Your task to perform on an android device: turn on showing notifications on the lock screen Image 0: 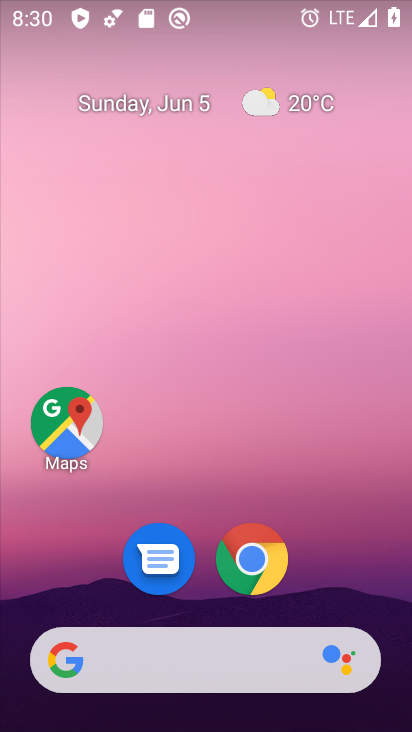
Step 0: drag from (349, 600) to (283, 179)
Your task to perform on an android device: turn on showing notifications on the lock screen Image 1: 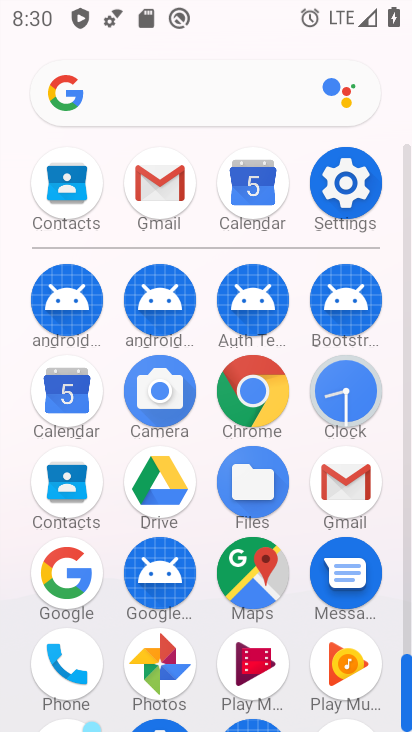
Step 1: click (358, 177)
Your task to perform on an android device: turn on showing notifications on the lock screen Image 2: 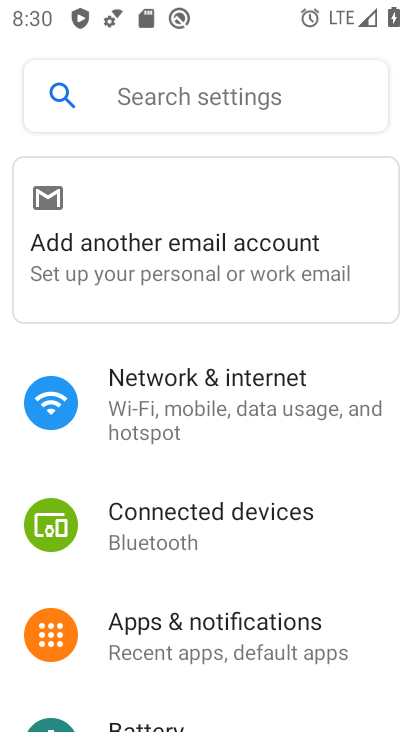
Step 2: drag from (264, 565) to (288, 136)
Your task to perform on an android device: turn on showing notifications on the lock screen Image 3: 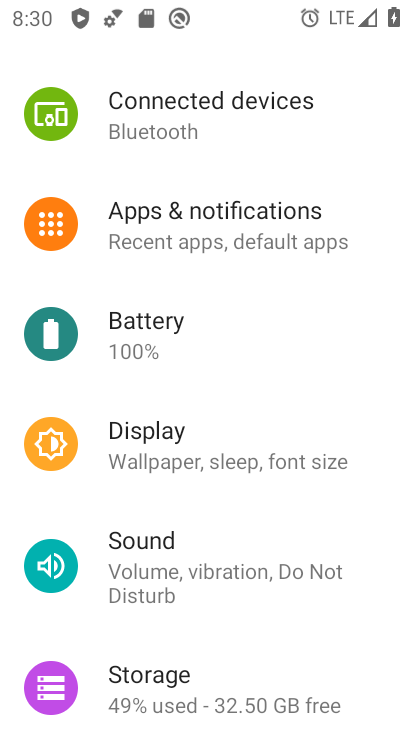
Step 3: click (276, 218)
Your task to perform on an android device: turn on showing notifications on the lock screen Image 4: 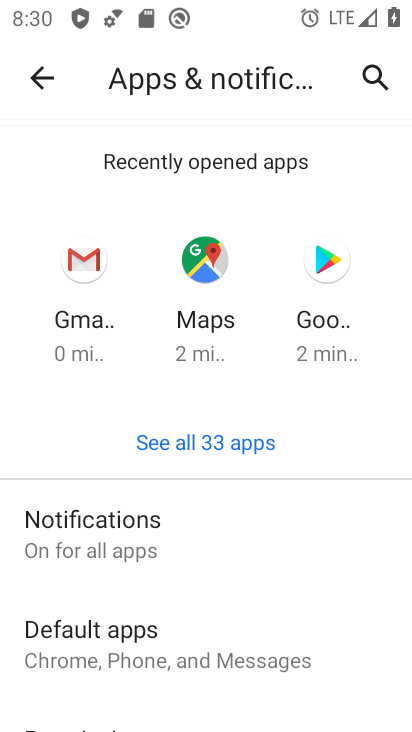
Step 4: click (139, 523)
Your task to perform on an android device: turn on showing notifications on the lock screen Image 5: 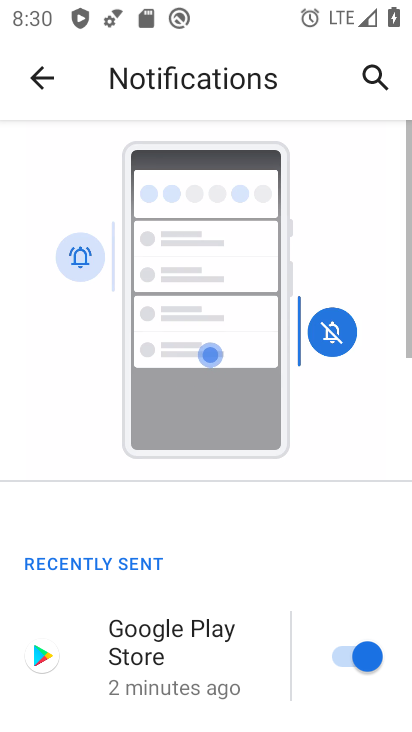
Step 5: drag from (286, 601) to (242, 85)
Your task to perform on an android device: turn on showing notifications on the lock screen Image 6: 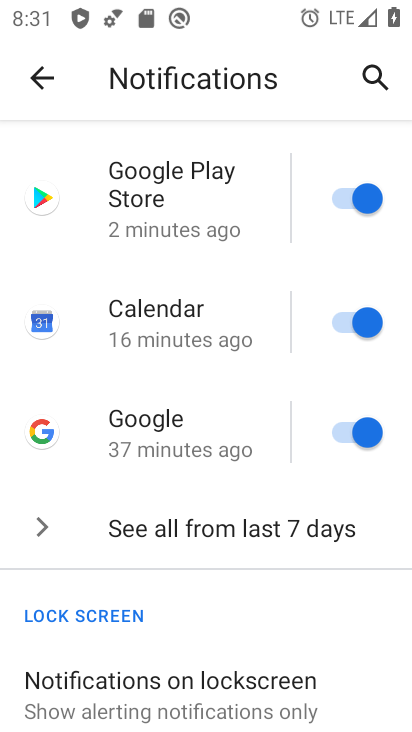
Step 6: click (173, 700)
Your task to perform on an android device: turn on showing notifications on the lock screen Image 7: 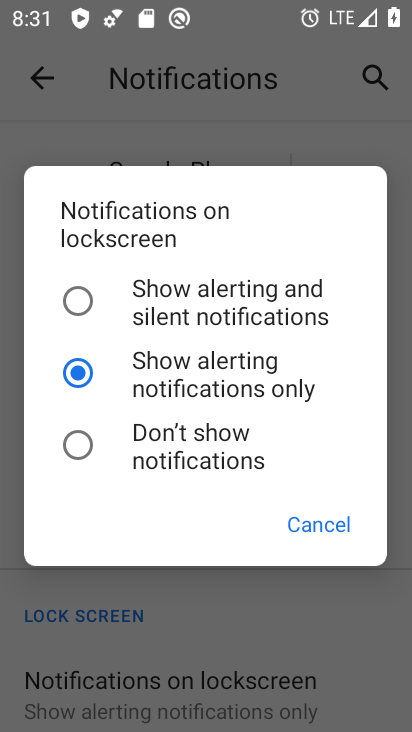
Step 7: task complete